Your task to perform on an android device: change notifications settings Image 0: 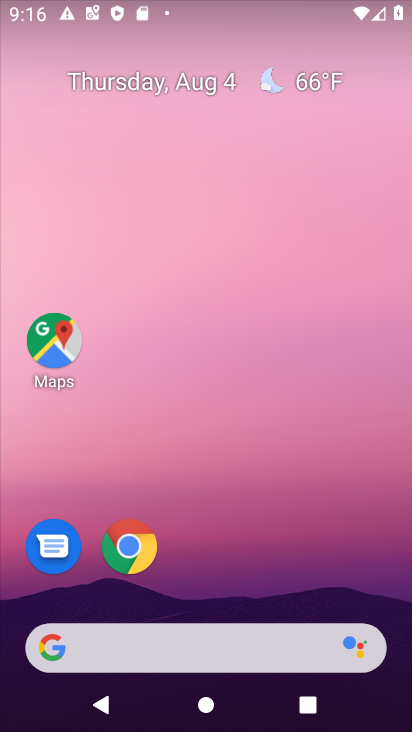
Step 0: drag from (228, 588) to (309, 6)
Your task to perform on an android device: change notifications settings Image 1: 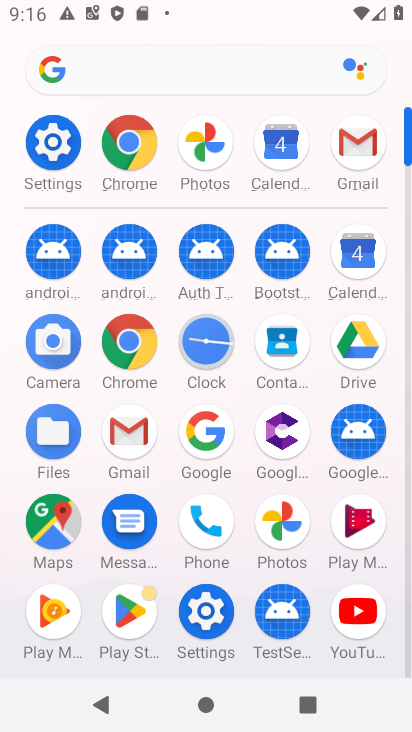
Step 1: click (50, 135)
Your task to perform on an android device: change notifications settings Image 2: 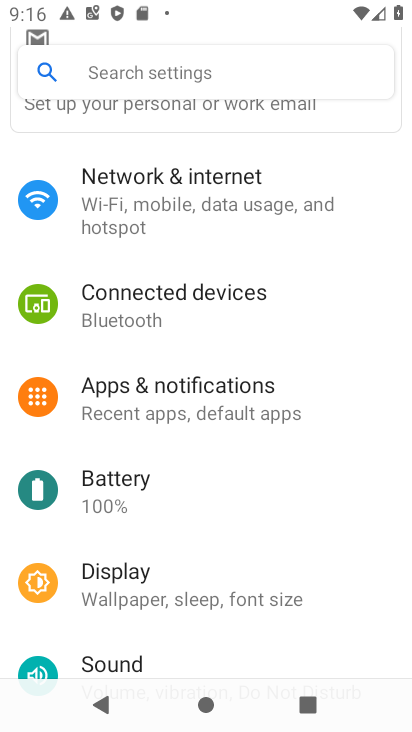
Step 2: click (154, 399)
Your task to perform on an android device: change notifications settings Image 3: 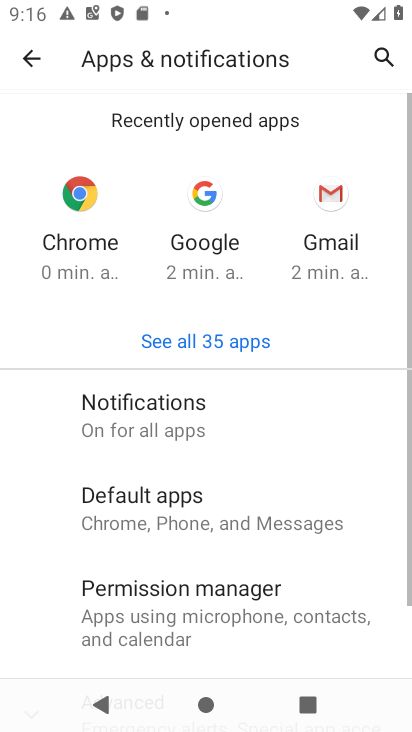
Step 3: click (154, 399)
Your task to perform on an android device: change notifications settings Image 4: 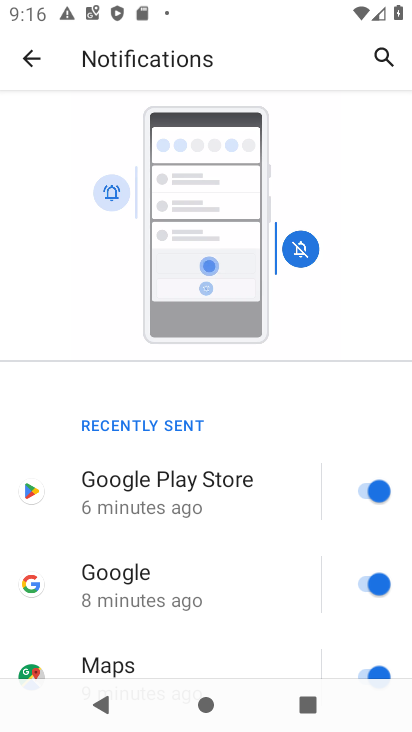
Step 4: drag from (270, 569) to (252, 94)
Your task to perform on an android device: change notifications settings Image 5: 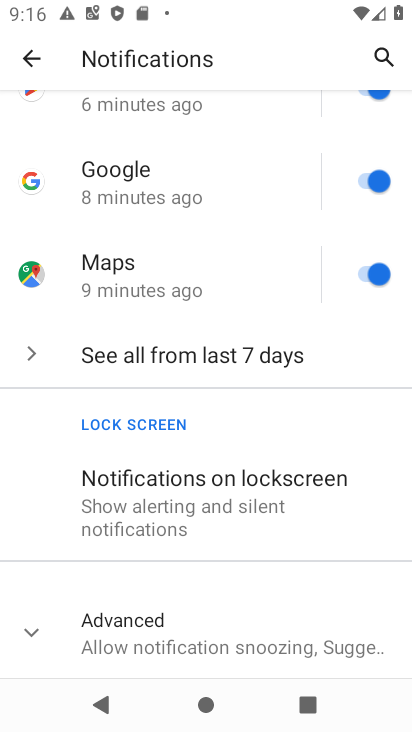
Step 5: click (174, 502)
Your task to perform on an android device: change notifications settings Image 6: 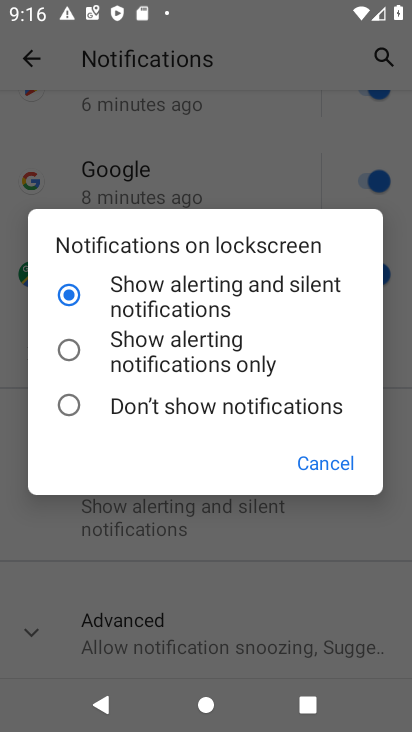
Step 6: click (64, 405)
Your task to perform on an android device: change notifications settings Image 7: 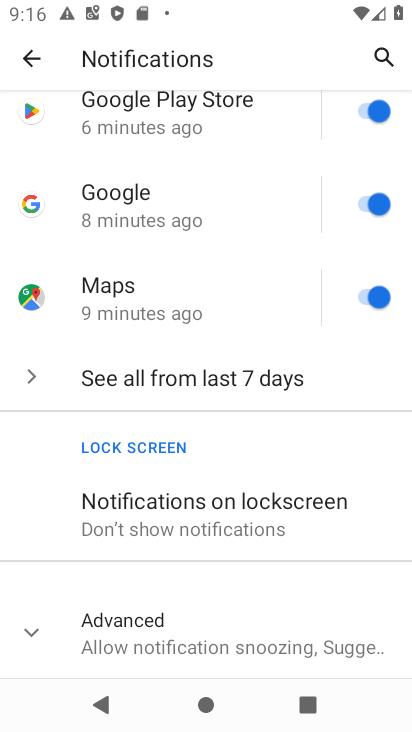
Step 7: task complete